Your task to perform on an android device: check data usage Image 0: 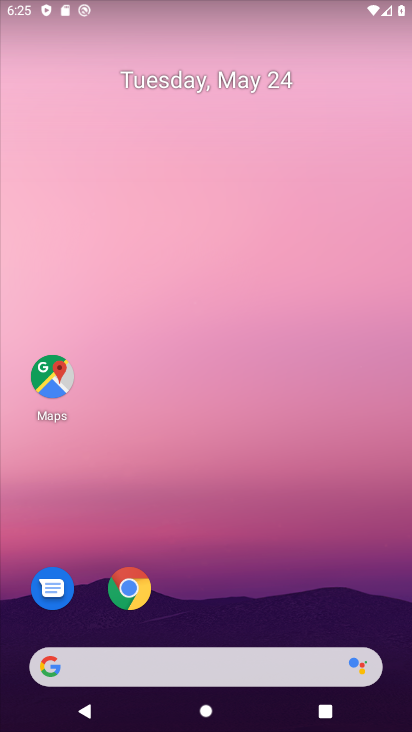
Step 0: drag from (301, 662) to (302, 0)
Your task to perform on an android device: check data usage Image 1: 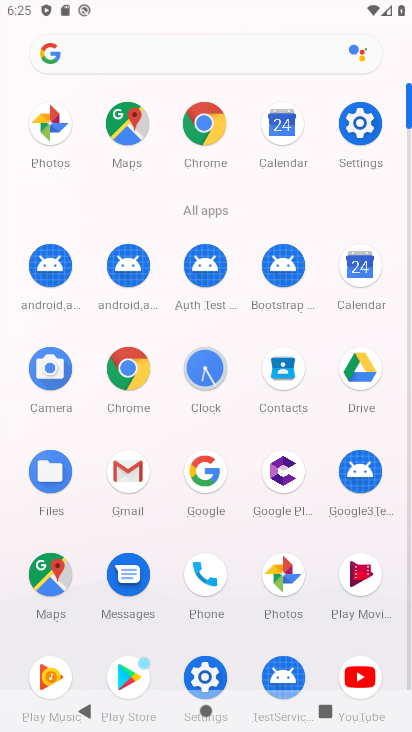
Step 1: click (356, 127)
Your task to perform on an android device: check data usage Image 2: 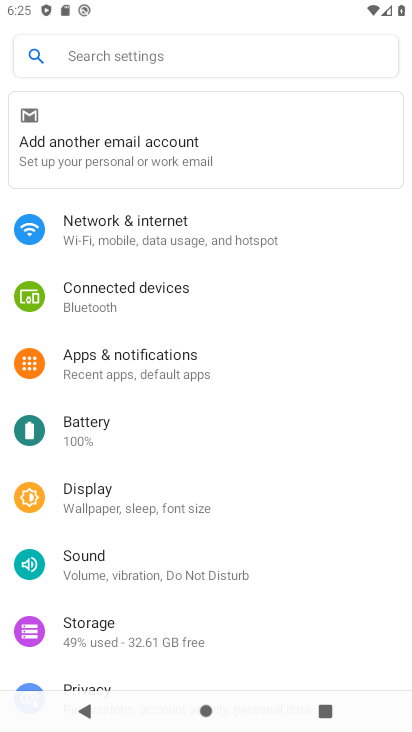
Step 2: click (167, 239)
Your task to perform on an android device: check data usage Image 3: 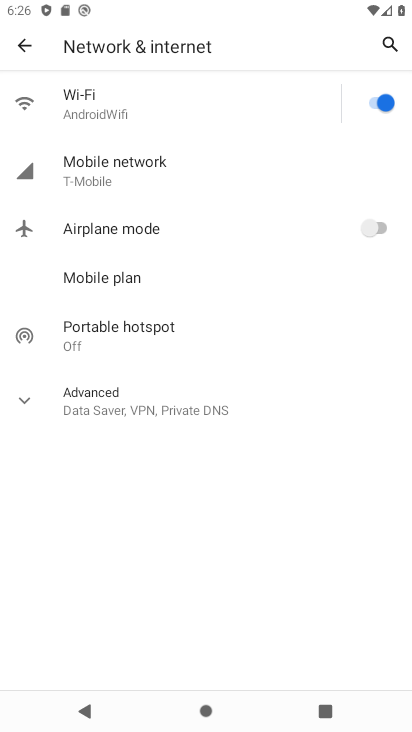
Step 3: click (117, 279)
Your task to perform on an android device: check data usage Image 4: 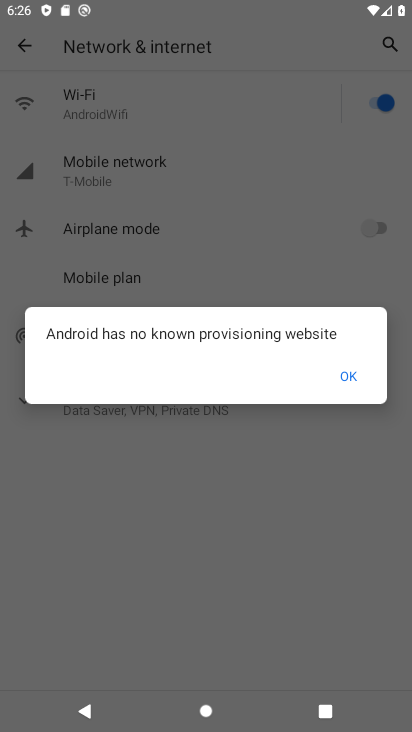
Step 4: task complete